Your task to perform on an android device: empty trash in the gmail app Image 0: 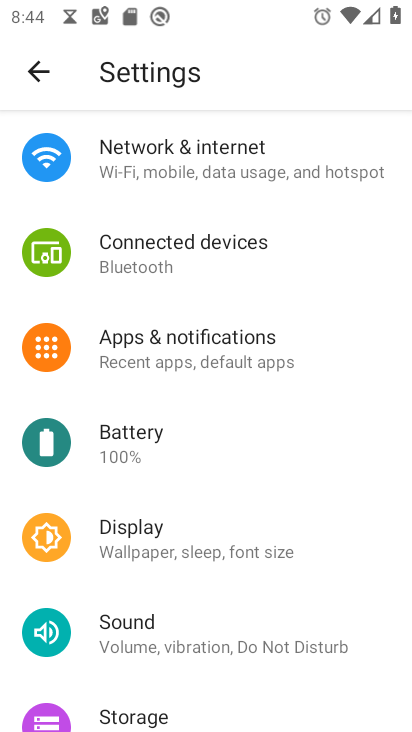
Step 0: press home button
Your task to perform on an android device: empty trash in the gmail app Image 1: 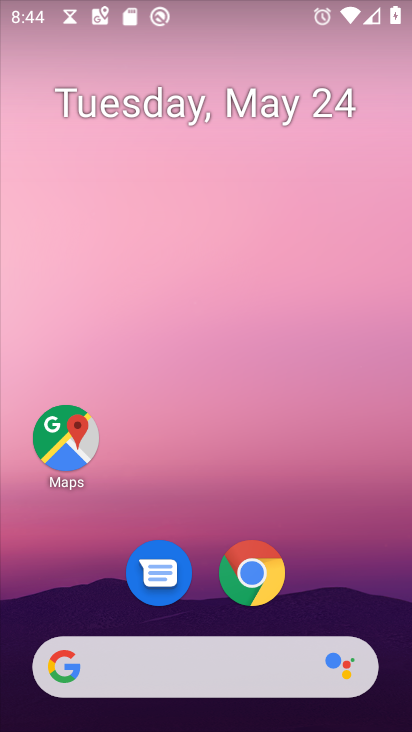
Step 1: drag from (333, 588) to (275, 92)
Your task to perform on an android device: empty trash in the gmail app Image 2: 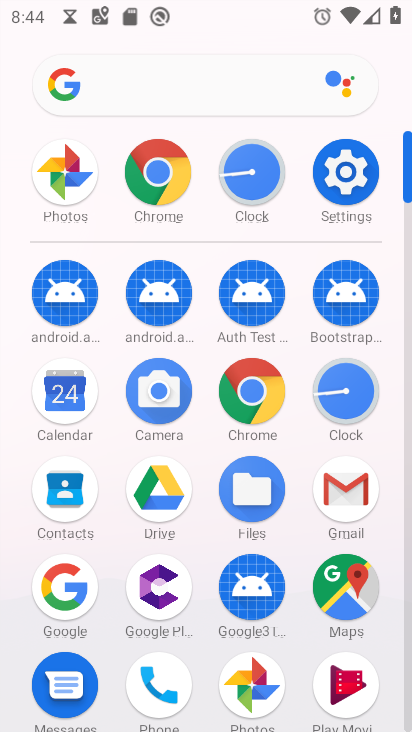
Step 2: click (358, 505)
Your task to perform on an android device: empty trash in the gmail app Image 3: 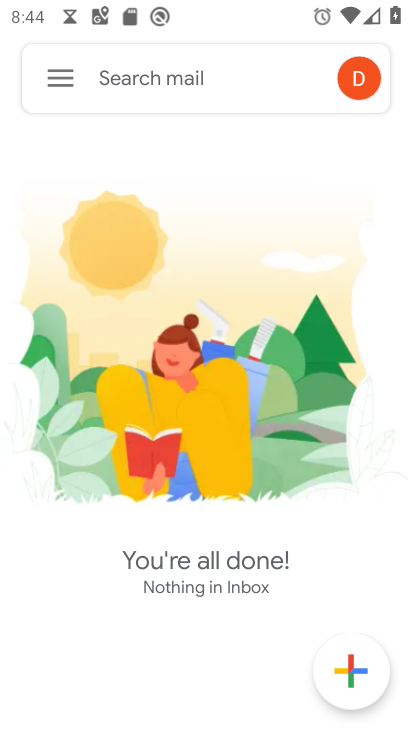
Step 3: click (46, 85)
Your task to perform on an android device: empty trash in the gmail app Image 4: 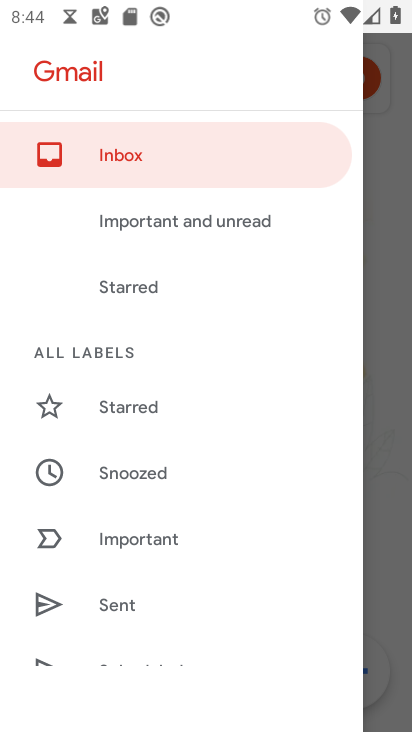
Step 4: drag from (194, 575) to (156, 96)
Your task to perform on an android device: empty trash in the gmail app Image 5: 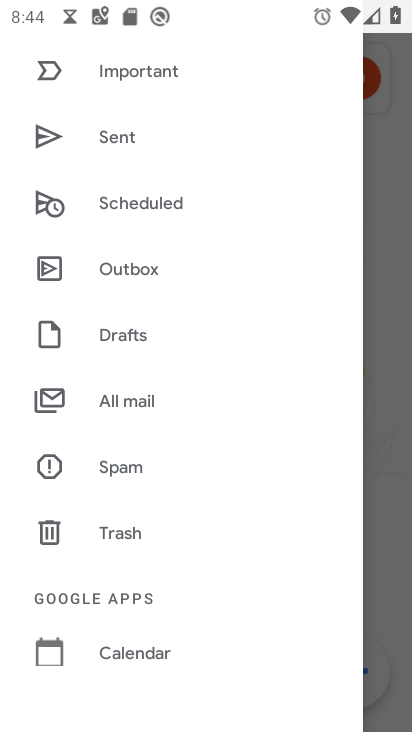
Step 5: click (155, 528)
Your task to perform on an android device: empty trash in the gmail app Image 6: 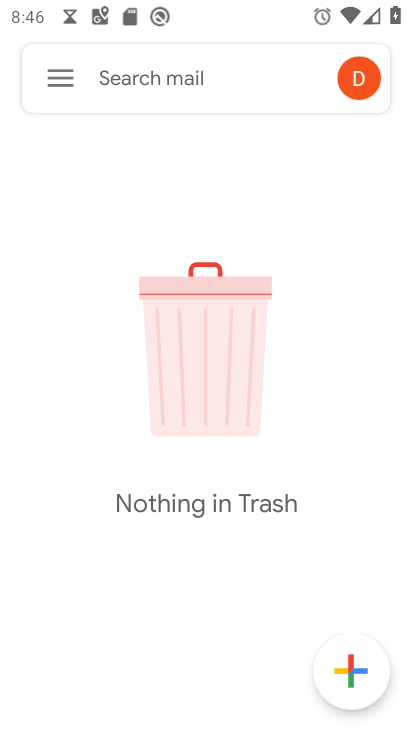
Step 6: task complete